Your task to perform on an android device: empty trash in google photos Image 0: 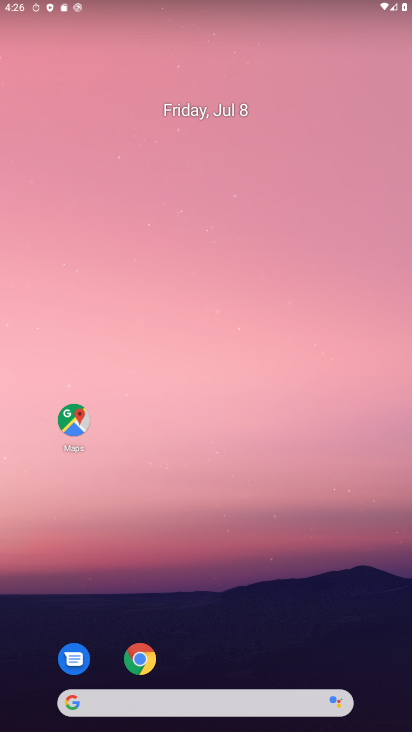
Step 0: drag from (313, 550) to (270, 108)
Your task to perform on an android device: empty trash in google photos Image 1: 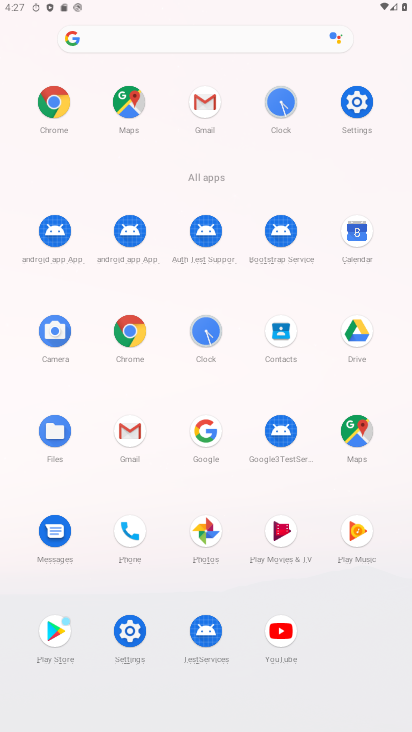
Step 1: click (210, 529)
Your task to perform on an android device: empty trash in google photos Image 2: 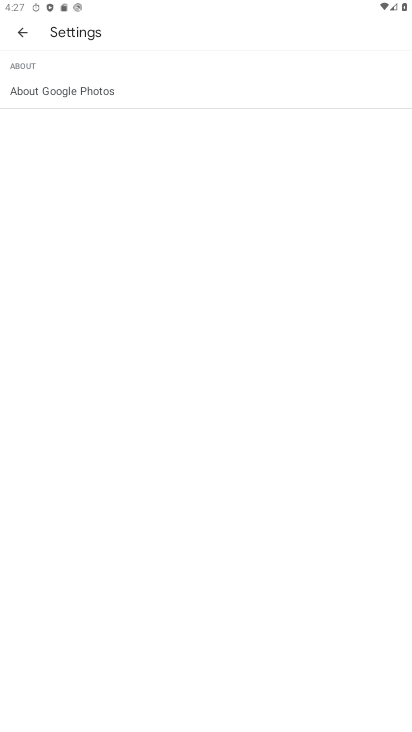
Step 2: click (18, 38)
Your task to perform on an android device: empty trash in google photos Image 3: 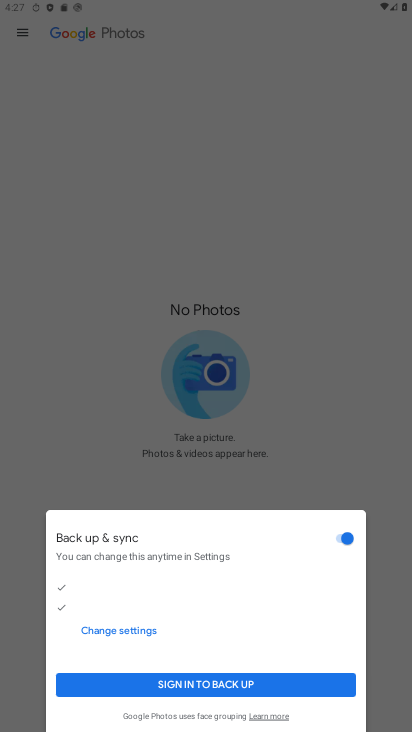
Step 3: click (246, 344)
Your task to perform on an android device: empty trash in google photos Image 4: 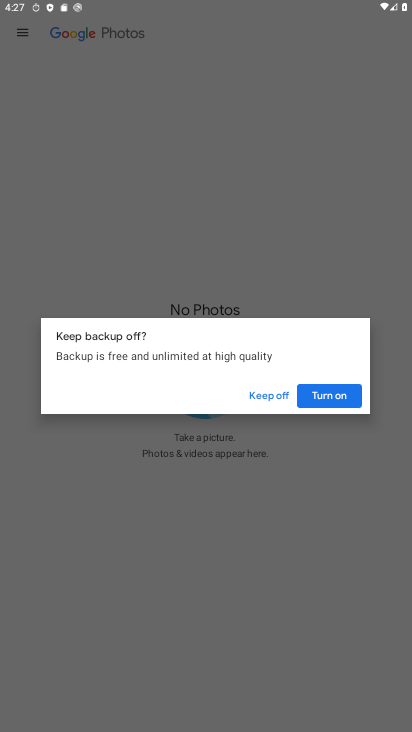
Step 4: click (275, 391)
Your task to perform on an android device: empty trash in google photos Image 5: 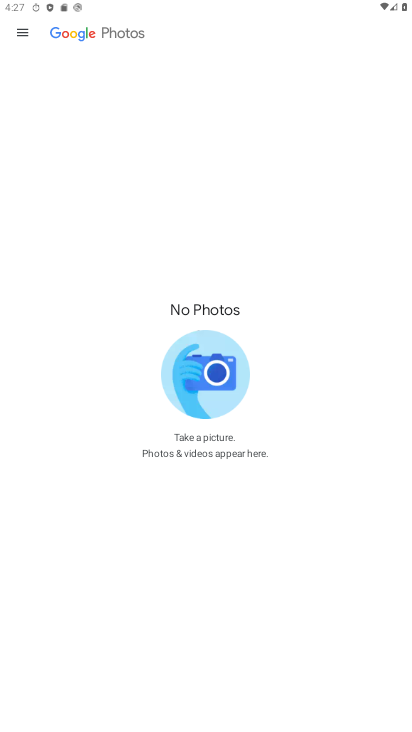
Step 5: click (25, 32)
Your task to perform on an android device: empty trash in google photos Image 6: 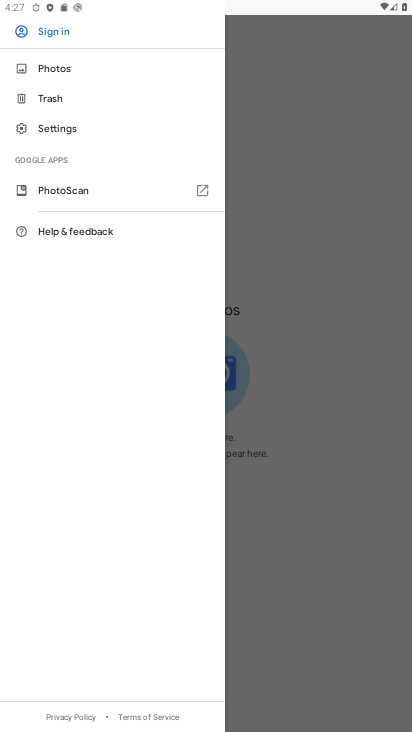
Step 6: click (38, 96)
Your task to perform on an android device: empty trash in google photos Image 7: 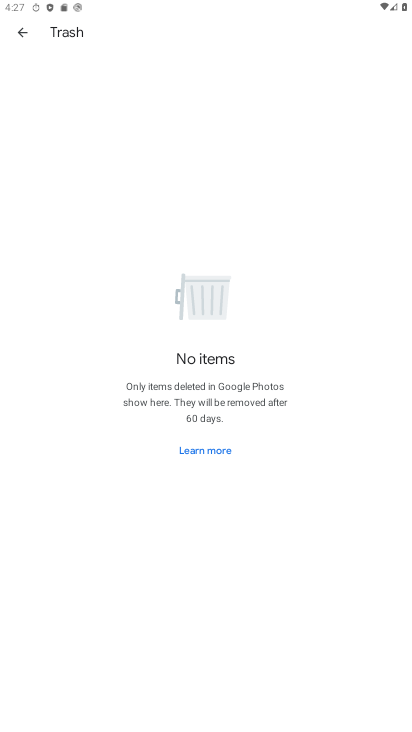
Step 7: task complete